Your task to perform on an android device: What is the news today? Image 0: 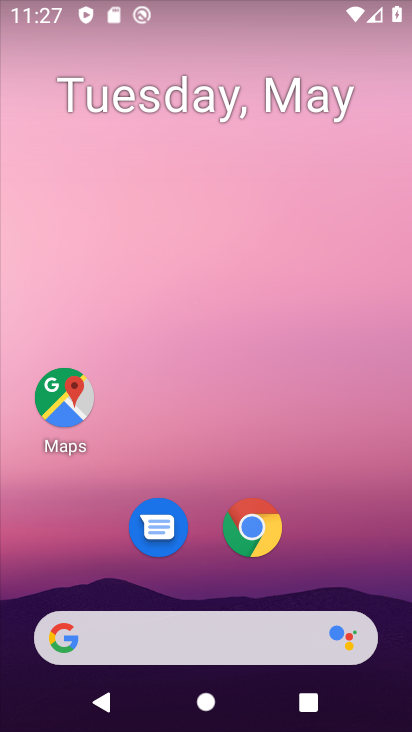
Step 0: drag from (245, 592) to (390, 4)
Your task to perform on an android device: What is the news today? Image 1: 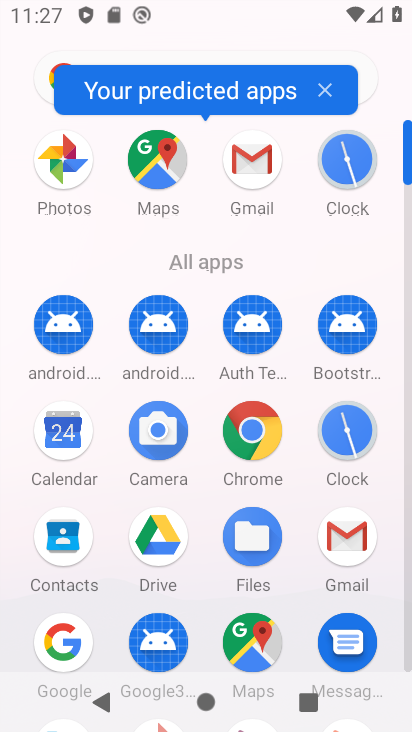
Step 1: click (256, 408)
Your task to perform on an android device: What is the news today? Image 2: 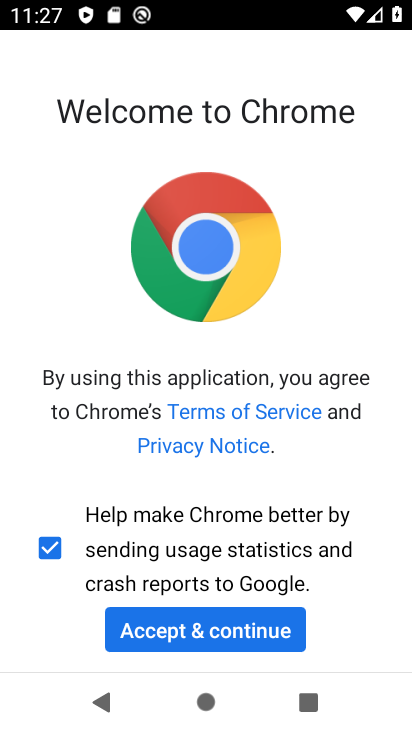
Step 2: click (264, 626)
Your task to perform on an android device: What is the news today? Image 3: 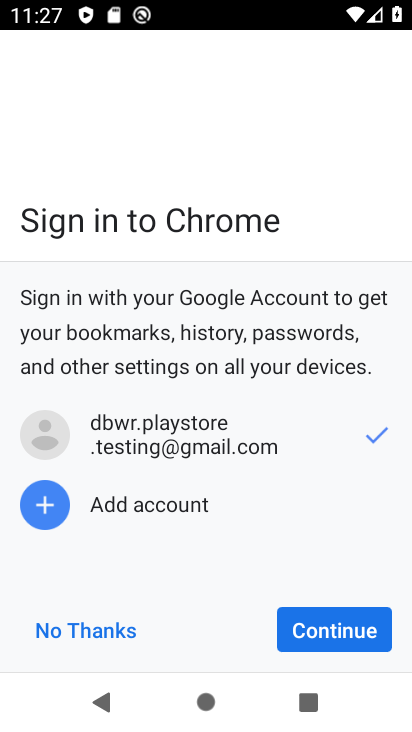
Step 3: click (120, 631)
Your task to perform on an android device: What is the news today? Image 4: 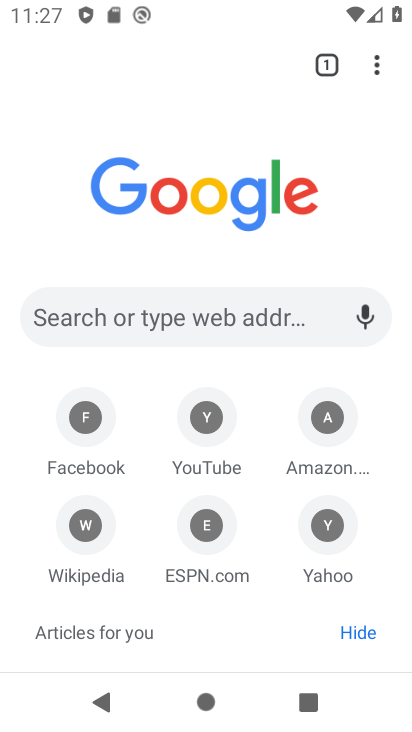
Step 4: click (270, 62)
Your task to perform on an android device: What is the news today? Image 5: 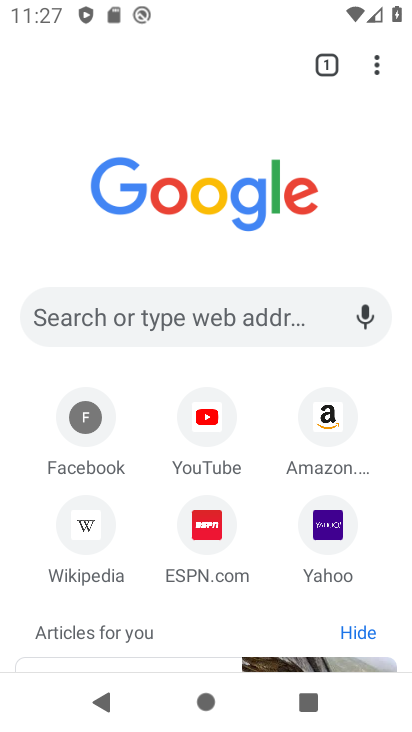
Step 5: click (174, 327)
Your task to perform on an android device: What is the news today? Image 6: 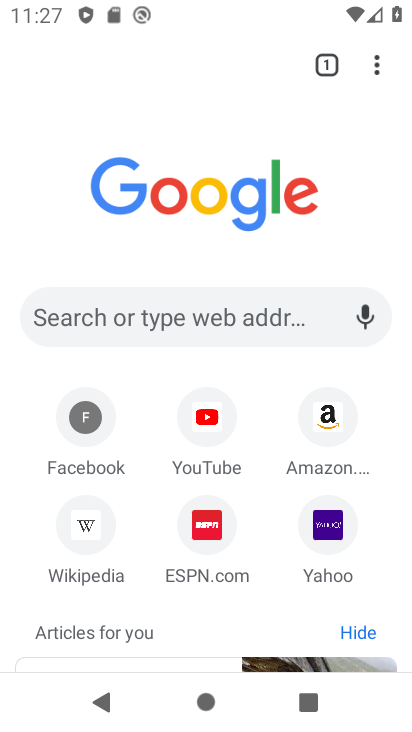
Step 6: click (169, 331)
Your task to perform on an android device: What is the news today? Image 7: 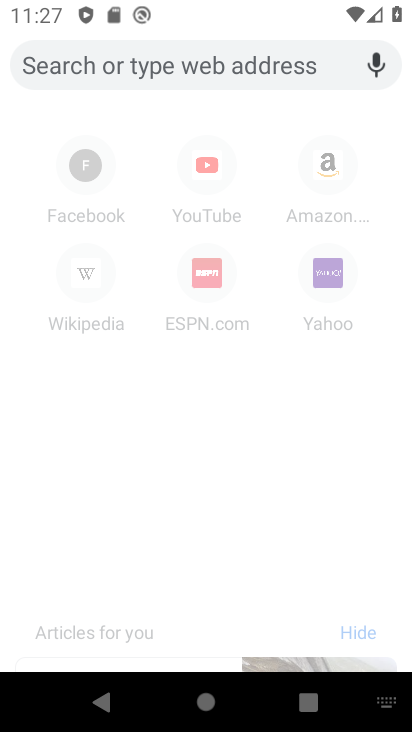
Step 7: type "news today"
Your task to perform on an android device: What is the news today? Image 8: 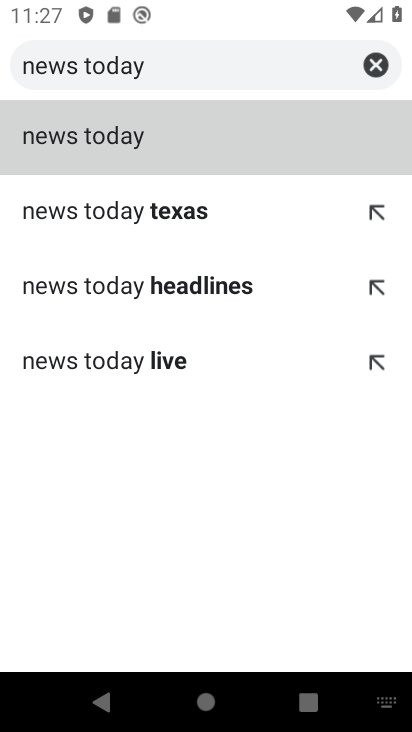
Step 8: click (217, 157)
Your task to perform on an android device: What is the news today? Image 9: 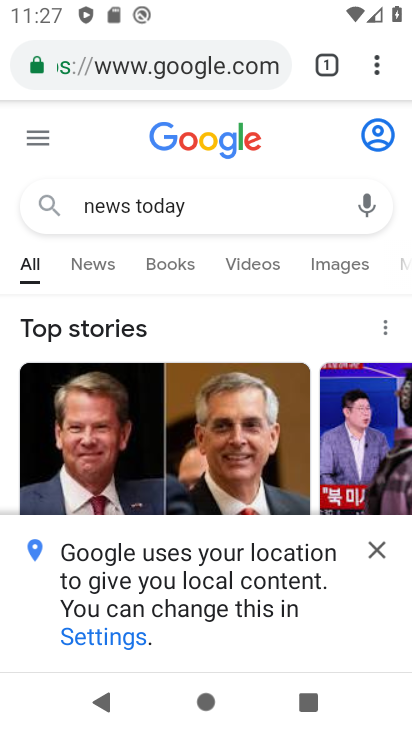
Step 9: task complete